Your task to perform on an android device: turn off picture-in-picture Image 0: 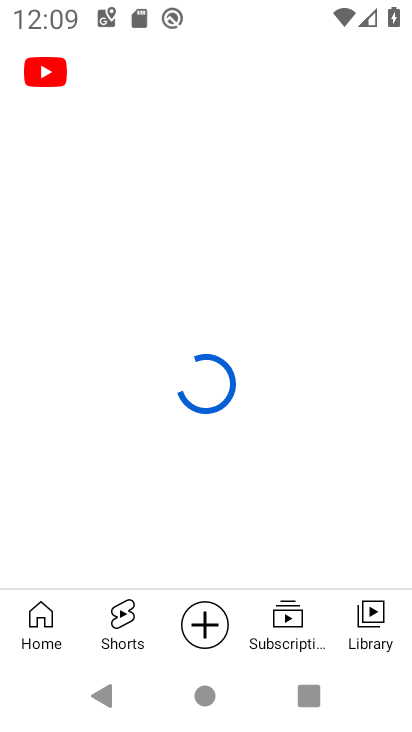
Step 0: press home button
Your task to perform on an android device: turn off picture-in-picture Image 1: 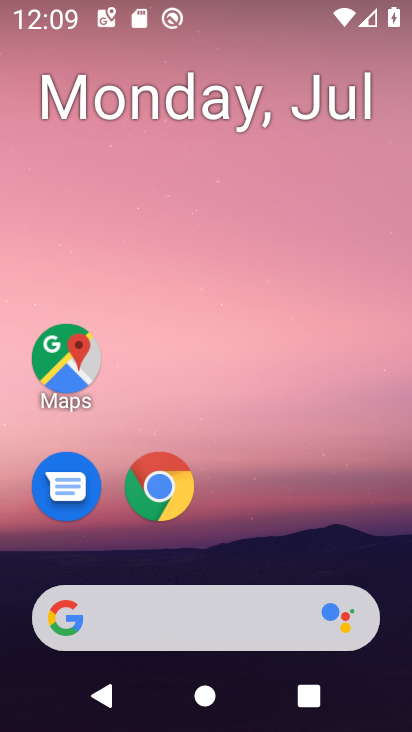
Step 1: drag from (354, 515) to (339, 135)
Your task to perform on an android device: turn off picture-in-picture Image 2: 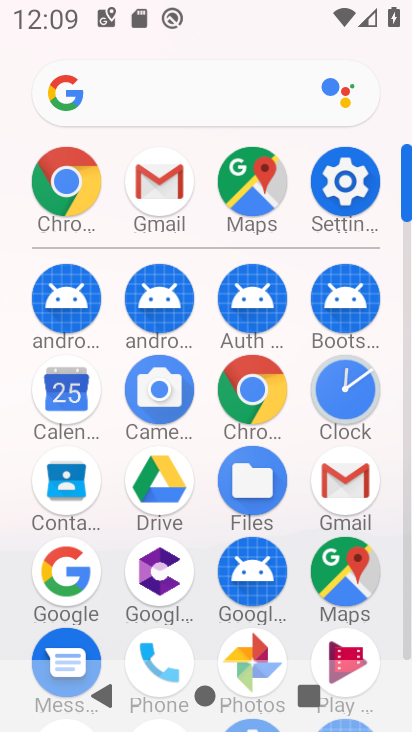
Step 2: click (349, 200)
Your task to perform on an android device: turn off picture-in-picture Image 3: 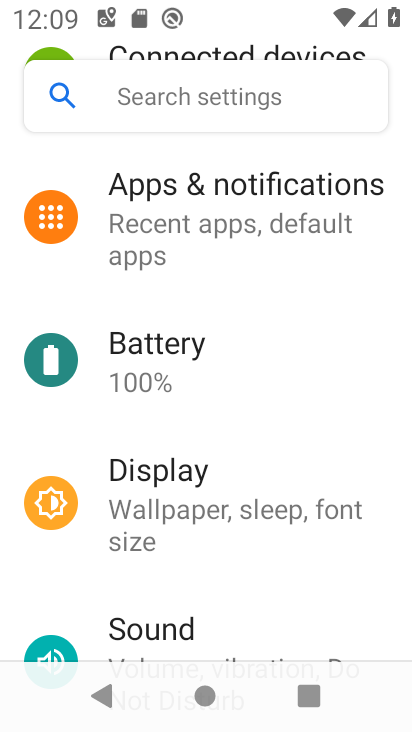
Step 3: click (349, 200)
Your task to perform on an android device: turn off picture-in-picture Image 4: 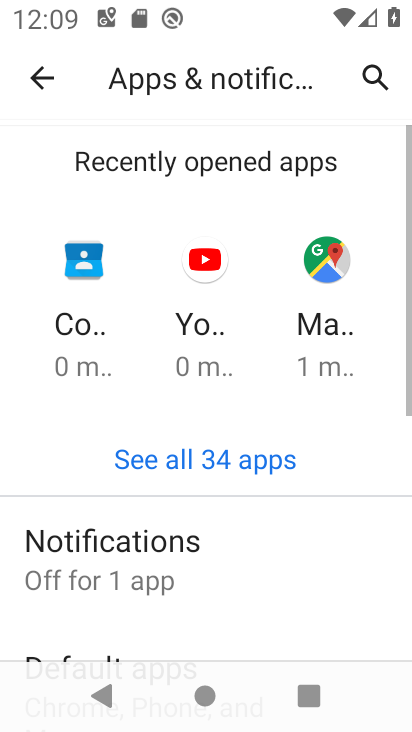
Step 4: drag from (317, 492) to (331, 406)
Your task to perform on an android device: turn off picture-in-picture Image 5: 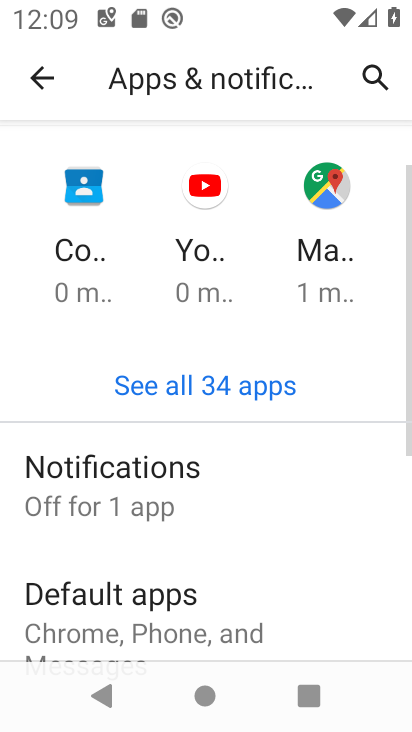
Step 5: drag from (331, 510) to (331, 408)
Your task to perform on an android device: turn off picture-in-picture Image 6: 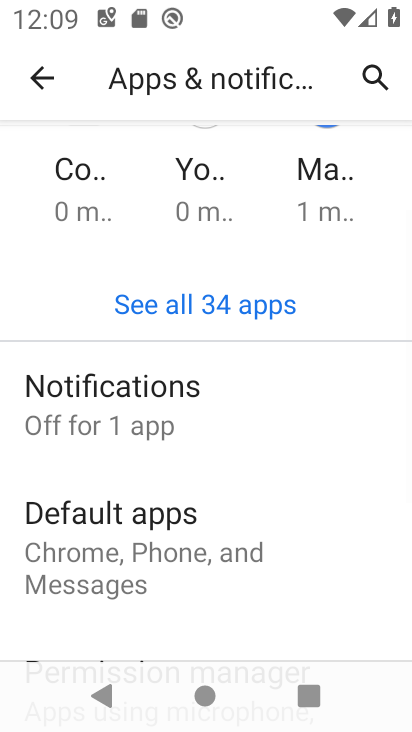
Step 6: drag from (314, 536) to (307, 406)
Your task to perform on an android device: turn off picture-in-picture Image 7: 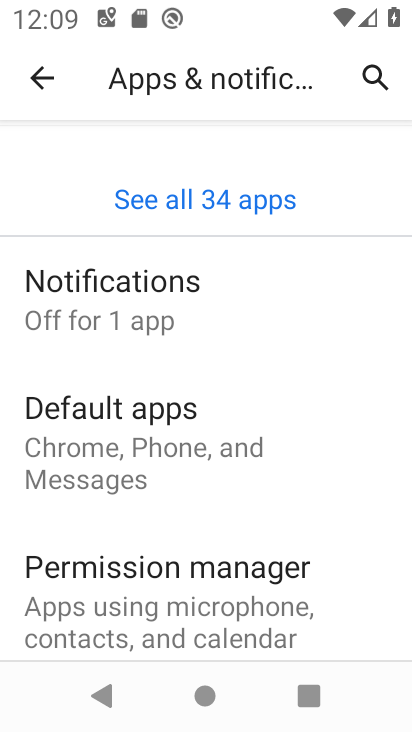
Step 7: drag from (345, 556) to (328, 430)
Your task to perform on an android device: turn off picture-in-picture Image 8: 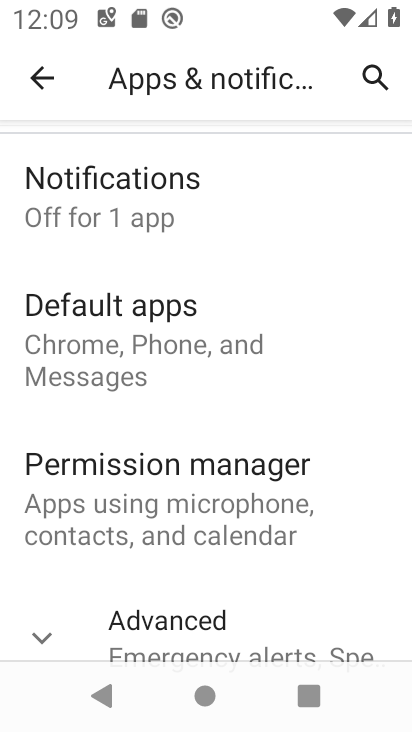
Step 8: drag from (333, 566) to (336, 436)
Your task to perform on an android device: turn off picture-in-picture Image 9: 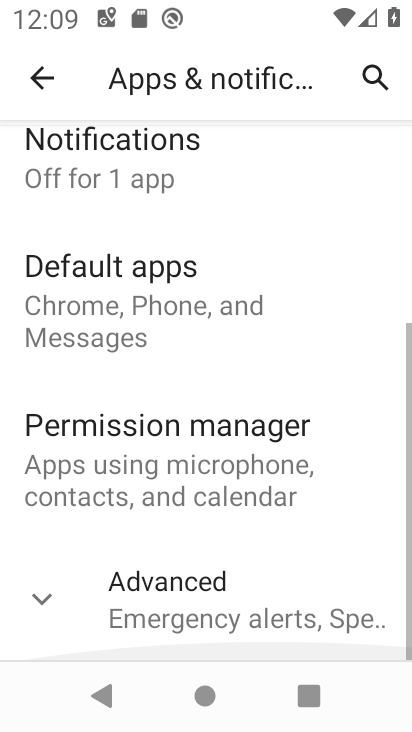
Step 9: click (313, 568)
Your task to perform on an android device: turn off picture-in-picture Image 10: 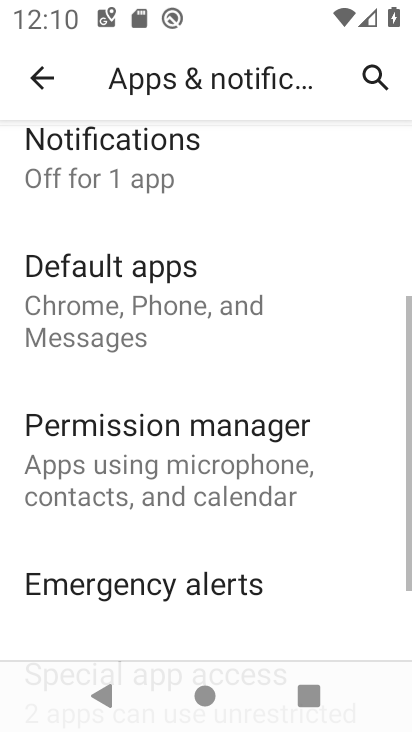
Step 10: drag from (313, 568) to (312, 482)
Your task to perform on an android device: turn off picture-in-picture Image 11: 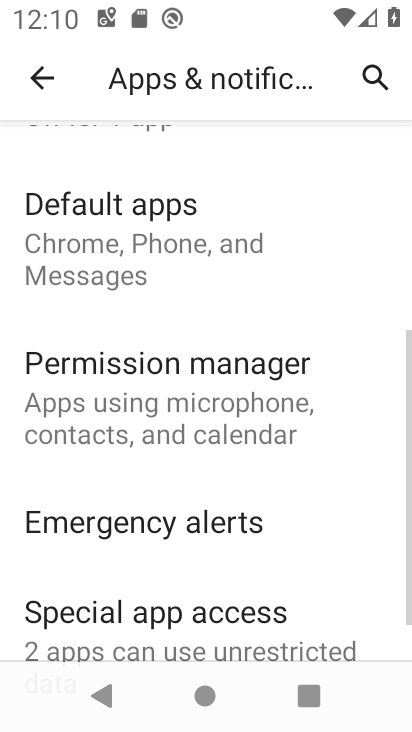
Step 11: drag from (312, 583) to (309, 474)
Your task to perform on an android device: turn off picture-in-picture Image 12: 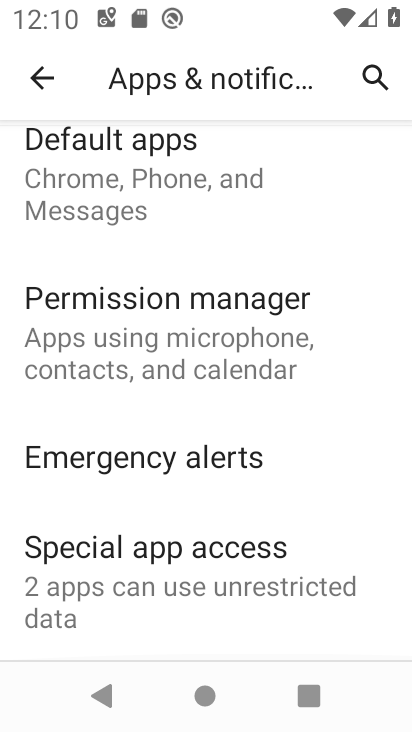
Step 12: click (287, 559)
Your task to perform on an android device: turn off picture-in-picture Image 13: 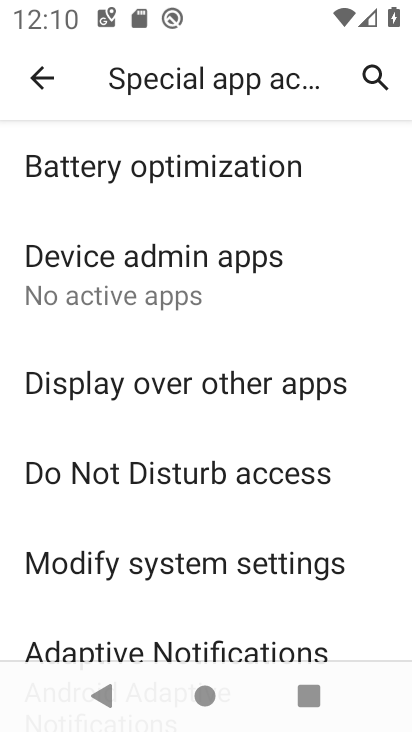
Step 13: drag from (375, 563) to (378, 495)
Your task to perform on an android device: turn off picture-in-picture Image 14: 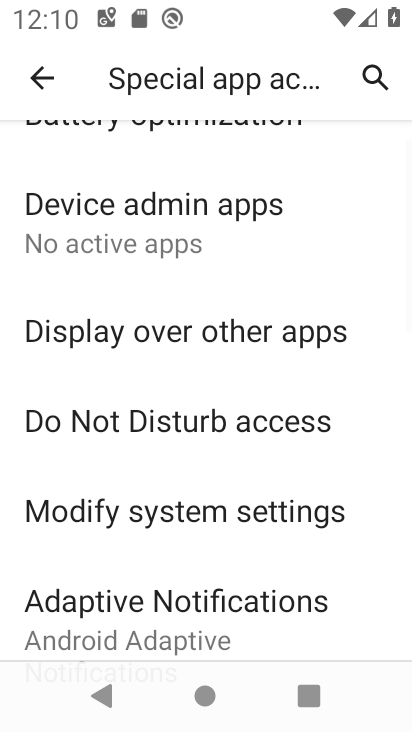
Step 14: drag from (363, 573) to (363, 487)
Your task to perform on an android device: turn off picture-in-picture Image 15: 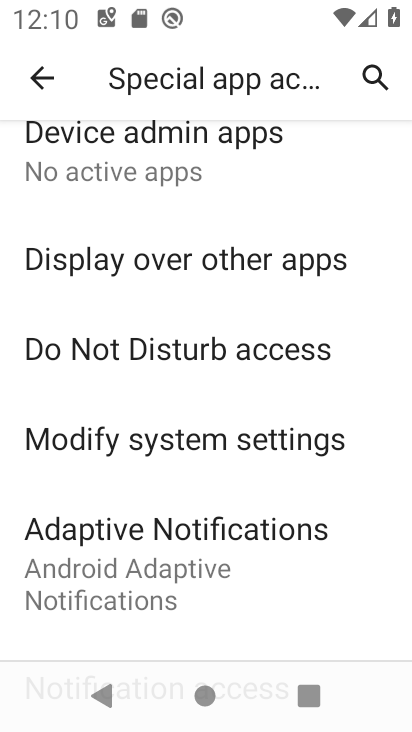
Step 15: drag from (375, 548) to (371, 487)
Your task to perform on an android device: turn off picture-in-picture Image 16: 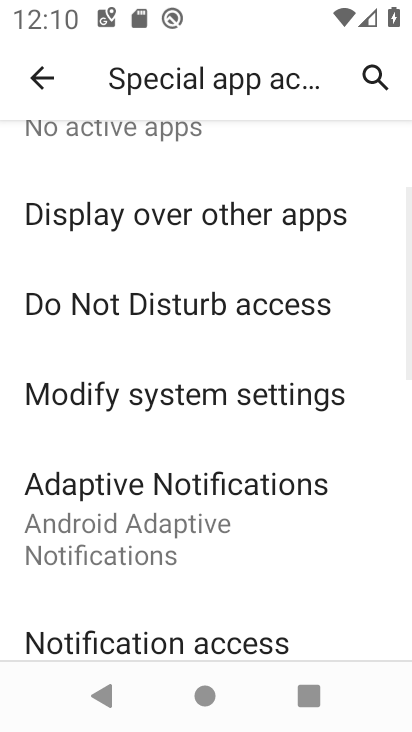
Step 16: drag from (376, 570) to (364, 497)
Your task to perform on an android device: turn off picture-in-picture Image 17: 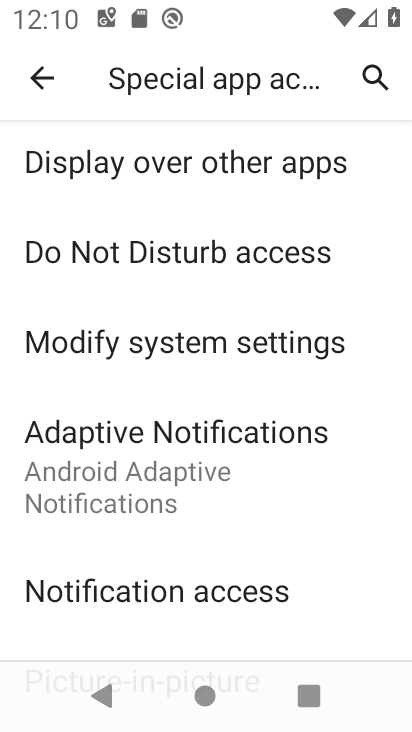
Step 17: drag from (367, 574) to (362, 493)
Your task to perform on an android device: turn off picture-in-picture Image 18: 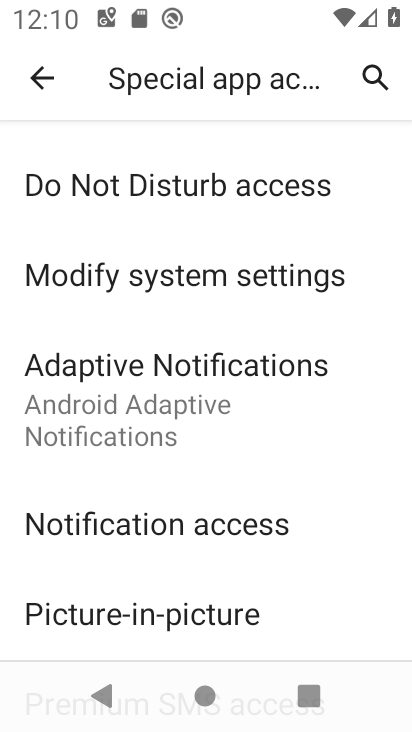
Step 18: drag from (349, 551) to (343, 476)
Your task to perform on an android device: turn off picture-in-picture Image 19: 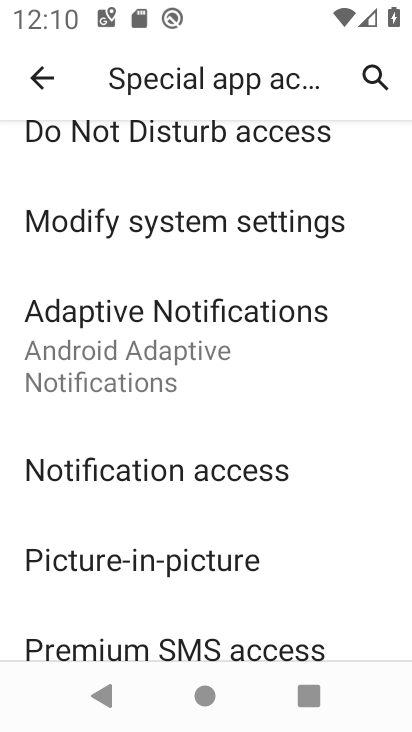
Step 19: drag from (339, 555) to (340, 477)
Your task to perform on an android device: turn off picture-in-picture Image 20: 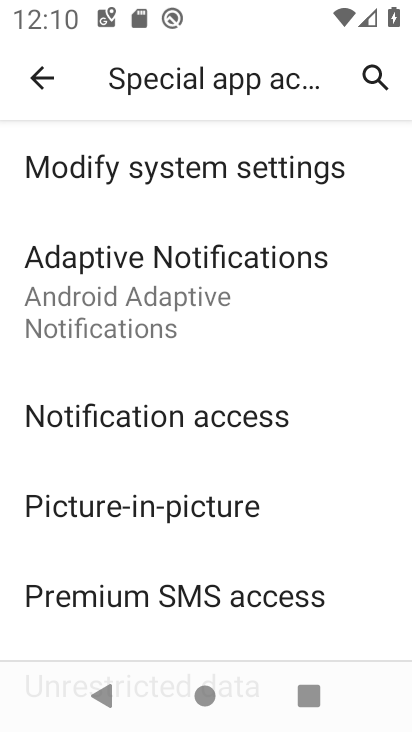
Step 20: click (316, 530)
Your task to perform on an android device: turn off picture-in-picture Image 21: 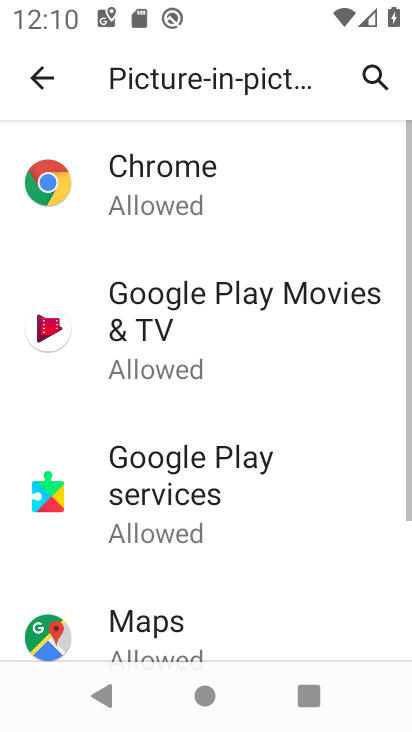
Step 21: drag from (316, 540) to (318, 486)
Your task to perform on an android device: turn off picture-in-picture Image 22: 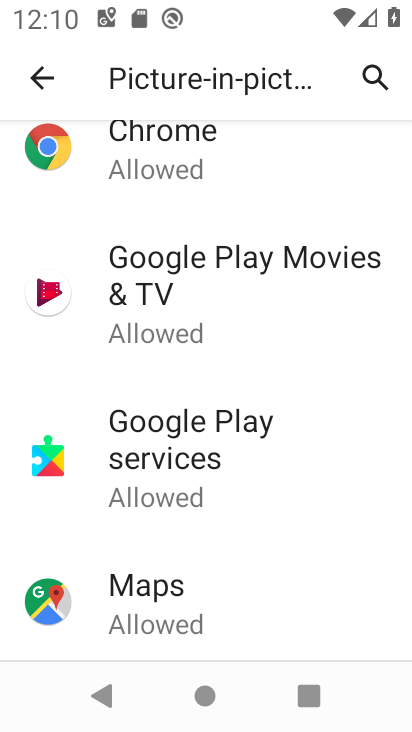
Step 22: drag from (327, 569) to (325, 478)
Your task to perform on an android device: turn off picture-in-picture Image 23: 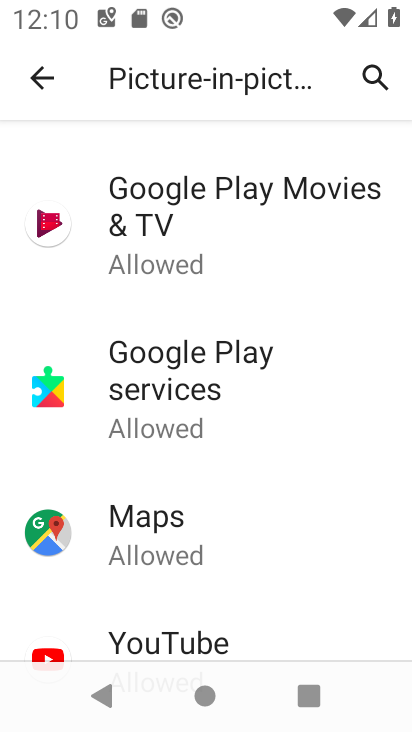
Step 23: drag from (326, 526) to (333, 363)
Your task to perform on an android device: turn off picture-in-picture Image 24: 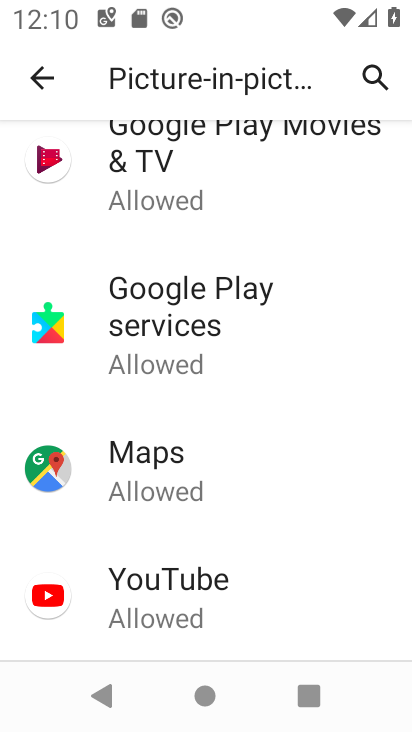
Step 24: click (280, 579)
Your task to perform on an android device: turn off picture-in-picture Image 25: 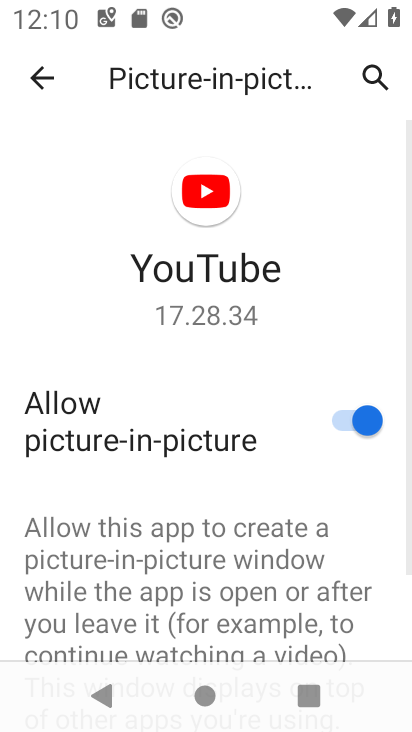
Step 25: click (369, 433)
Your task to perform on an android device: turn off picture-in-picture Image 26: 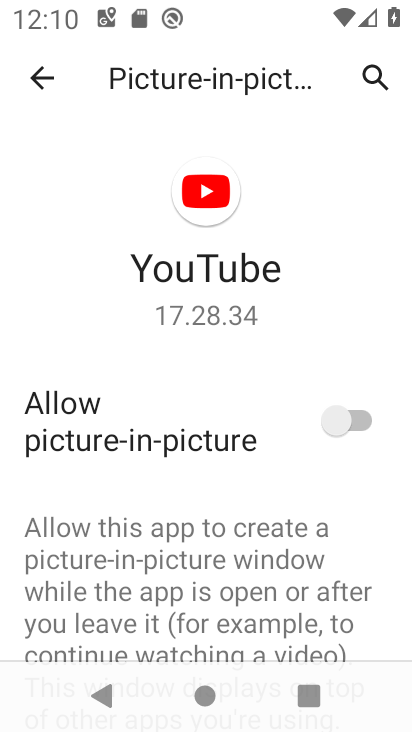
Step 26: task complete